Your task to perform on an android device: Go to Amazon Image 0: 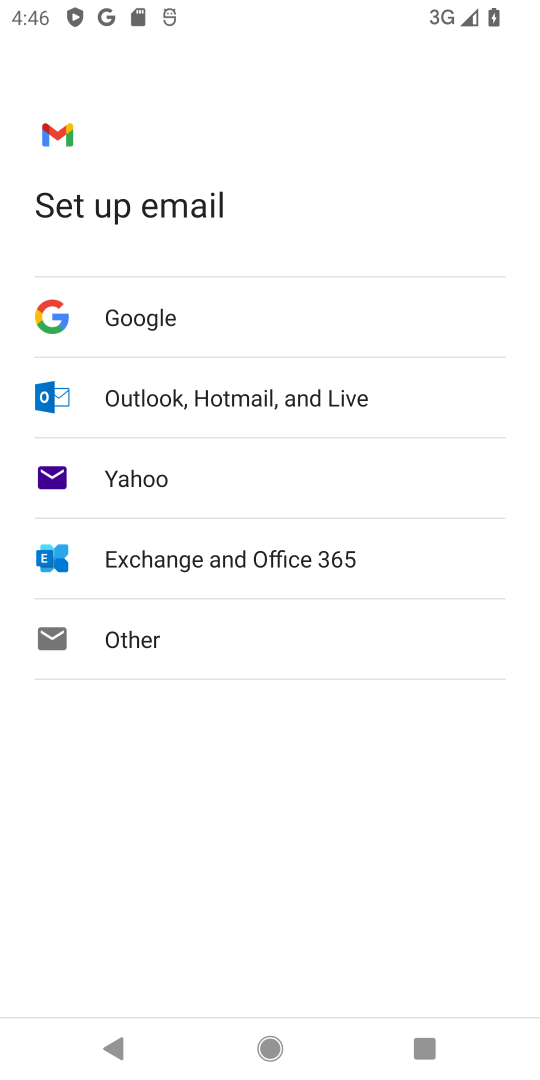
Step 0: press home button
Your task to perform on an android device: Go to Amazon Image 1: 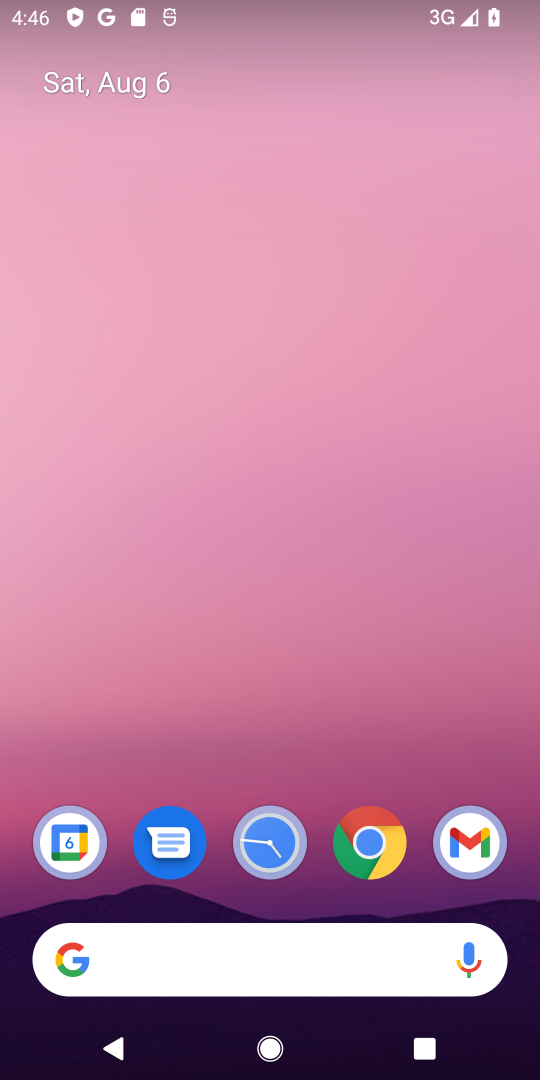
Step 1: drag from (511, 922) to (376, 107)
Your task to perform on an android device: Go to Amazon Image 2: 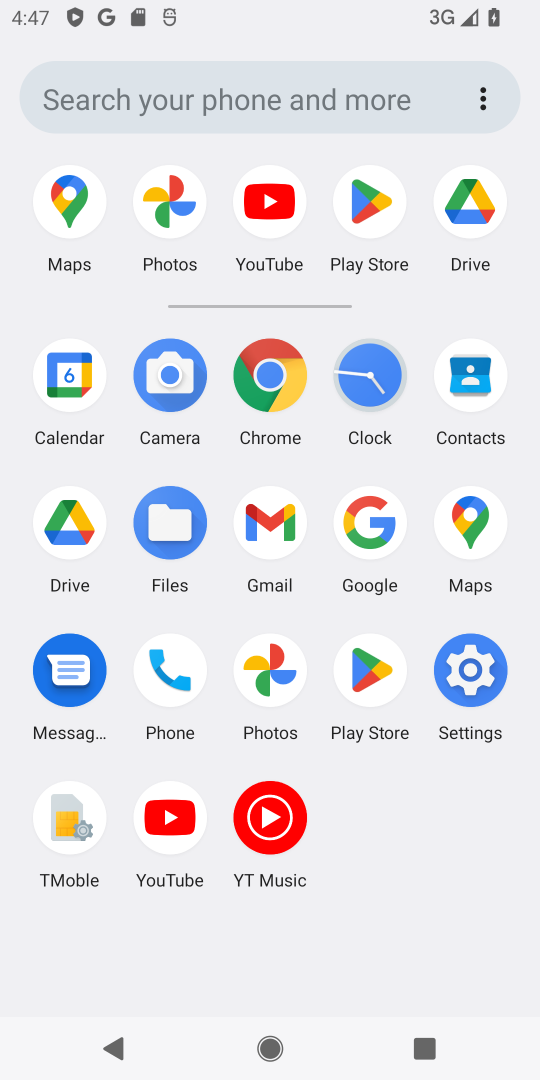
Step 2: click (282, 386)
Your task to perform on an android device: Go to Amazon Image 3: 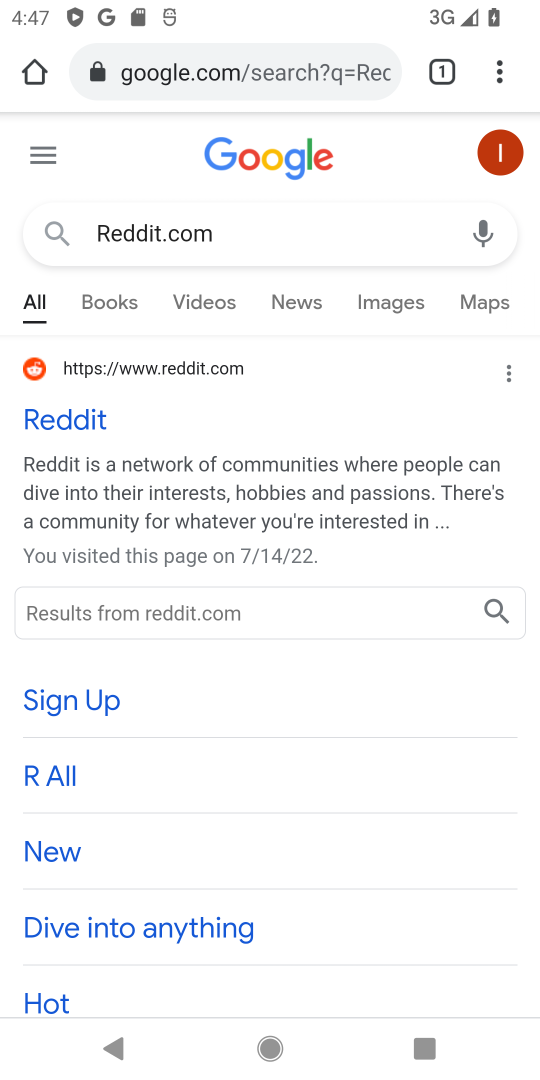
Step 3: click (309, 68)
Your task to perform on an android device: Go to Amazon Image 4: 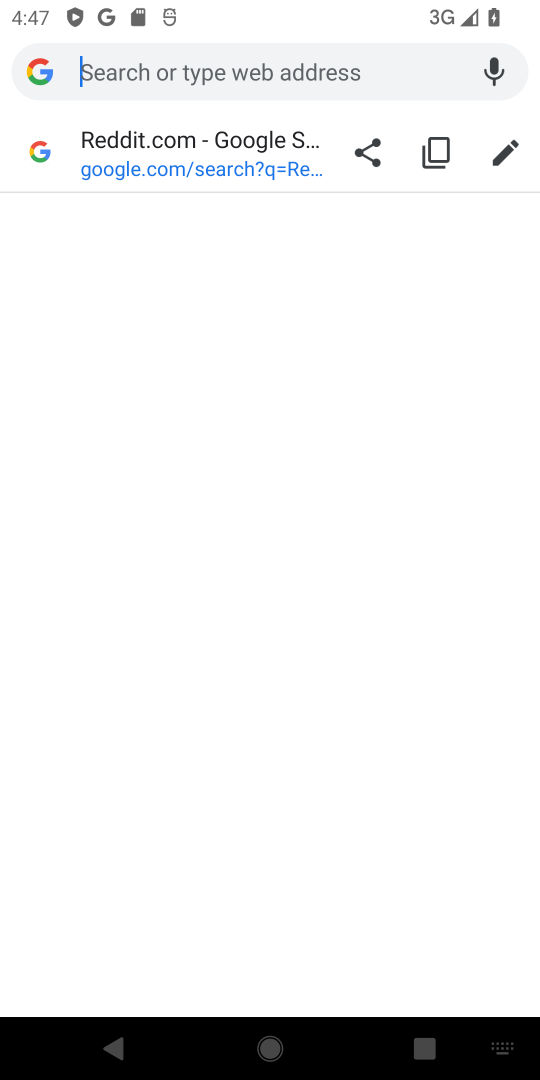
Step 4: type "Amazon"
Your task to perform on an android device: Go to Amazon Image 5: 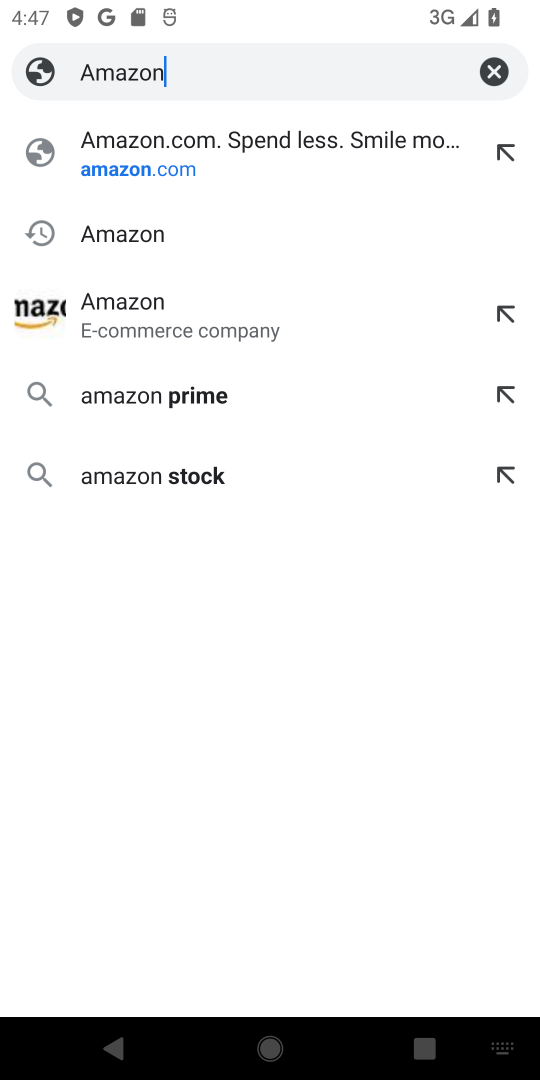
Step 5: click (118, 230)
Your task to perform on an android device: Go to Amazon Image 6: 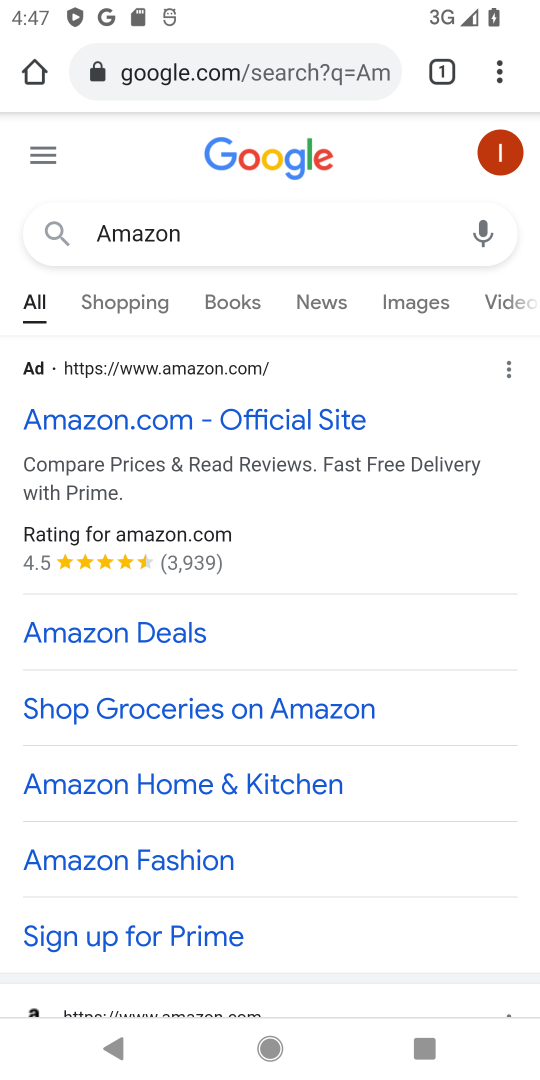
Step 6: task complete